Your task to perform on an android device: Open ESPN.com Image 0: 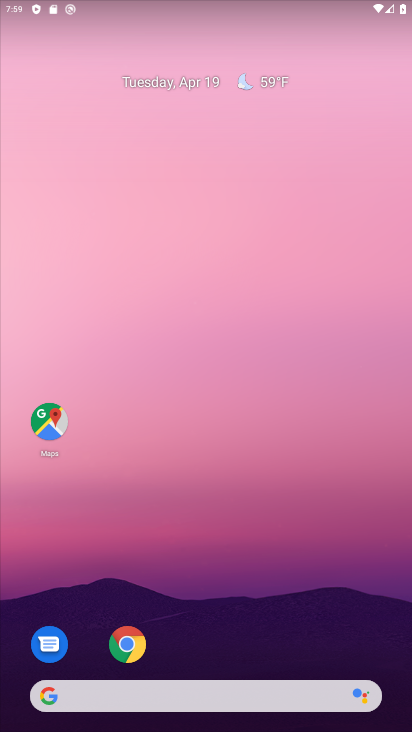
Step 0: drag from (197, 633) to (178, 114)
Your task to perform on an android device: Open ESPN.com Image 1: 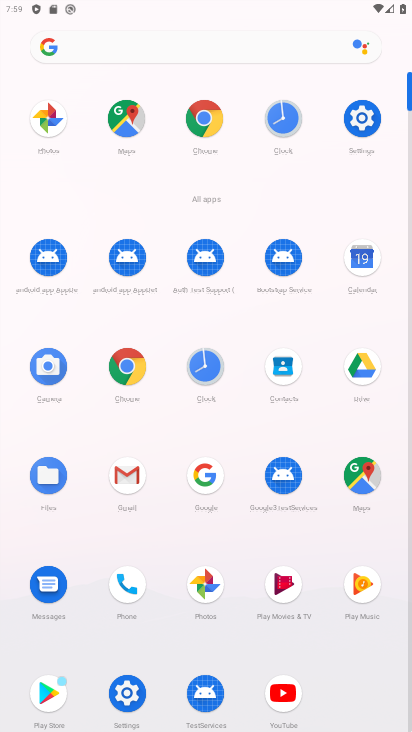
Step 1: click (119, 378)
Your task to perform on an android device: Open ESPN.com Image 2: 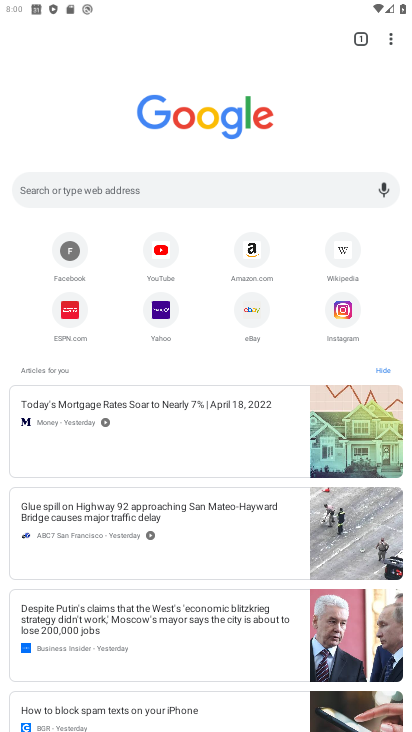
Step 2: click (189, 187)
Your task to perform on an android device: Open ESPN.com Image 3: 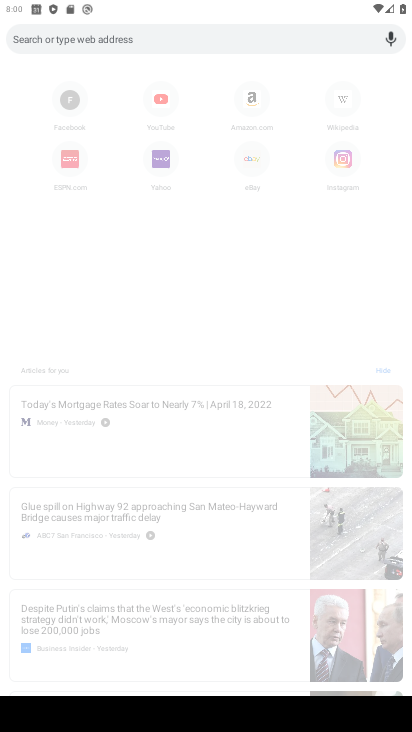
Step 3: type "ESPN.com"
Your task to perform on an android device: Open ESPN.com Image 4: 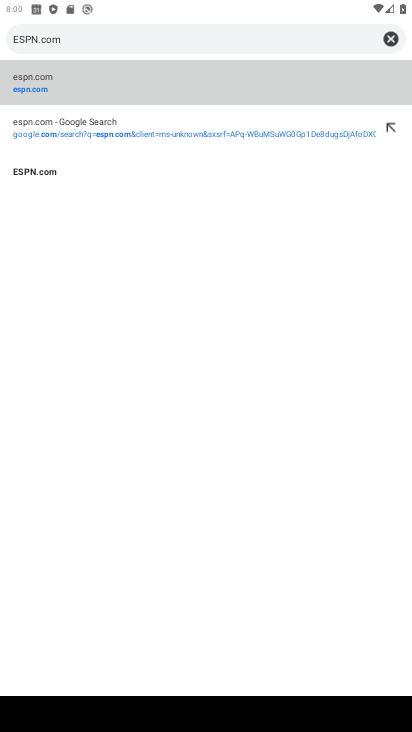
Step 4: click (33, 80)
Your task to perform on an android device: Open ESPN.com Image 5: 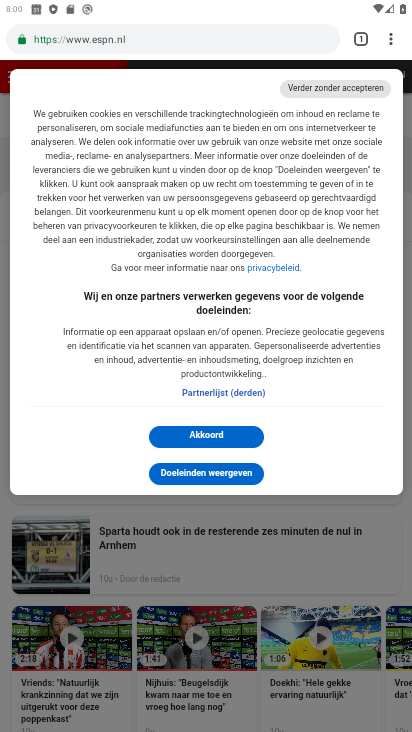
Step 5: task complete